Your task to perform on an android device: What is the news today? Image 0: 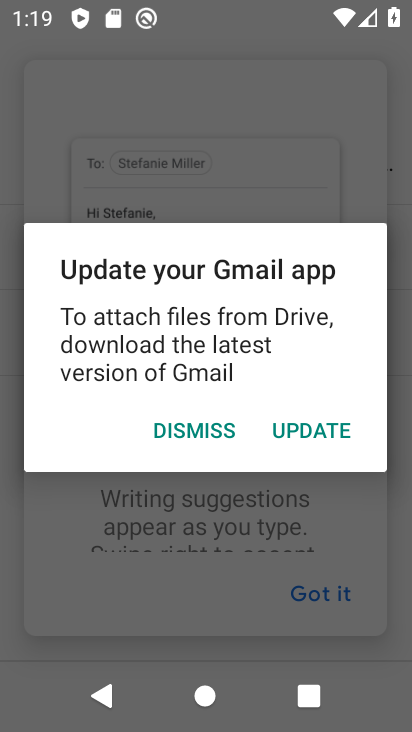
Step 0: press home button
Your task to perform on an android device: What is the news today? Image 1: 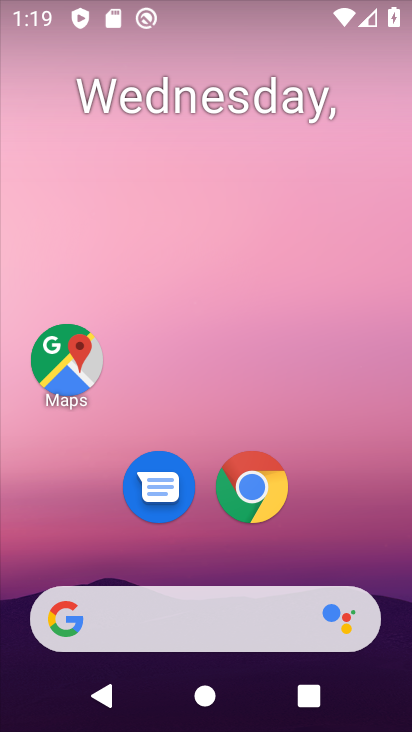
Step 1: task complete